Your task to perform on an android device: delete a single message in the gmail app Image 0: 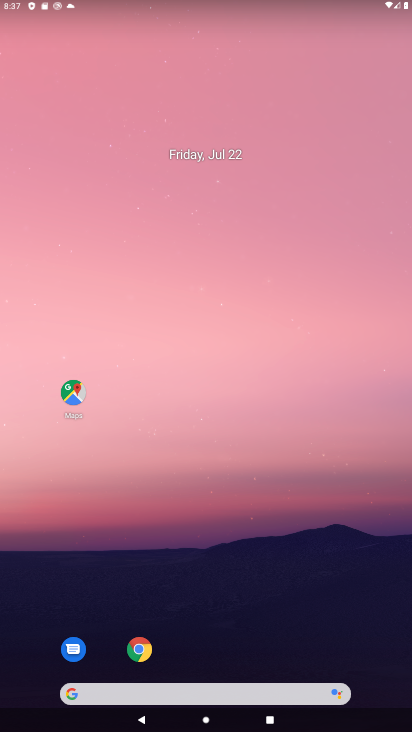
Step 0: drag from (251, 582) to (347, 243)
Your task to perform on an android device: delete a single message in the gmail app Image 1: 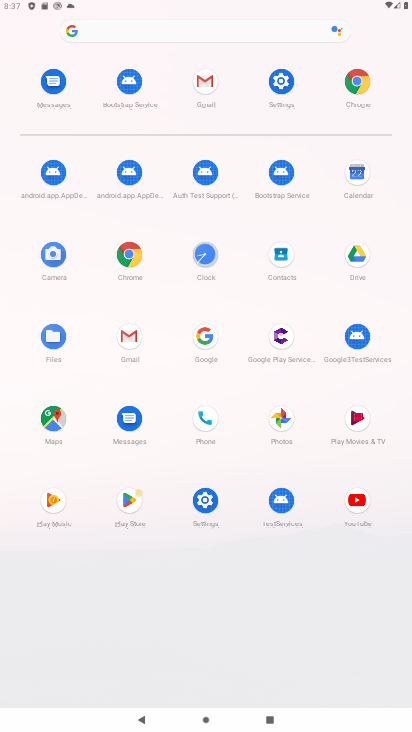
Step 1: click (125, 346)
Your task to perform on an android device: delete a single message in the gmail app Image 2: 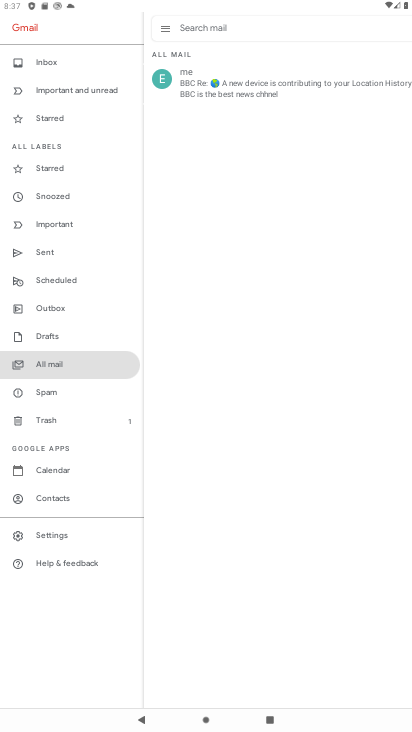
Step 2: task complete